Your task to perform on an android device: star an email in the gmail app Image 0: 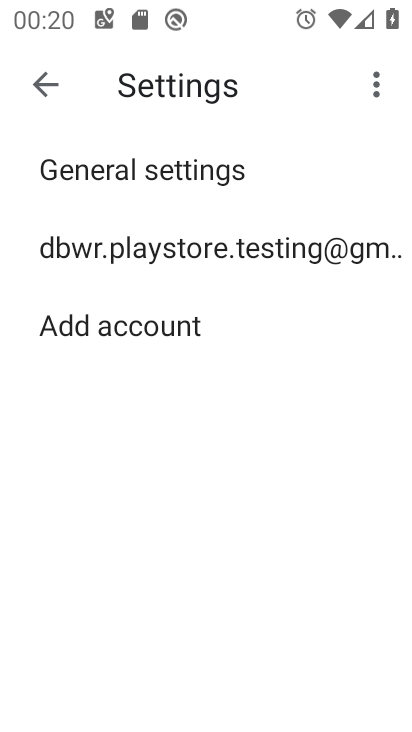
Step 0: click (53, 83)
Your task to perform on an android device: star an email in the gmail app Image 1: 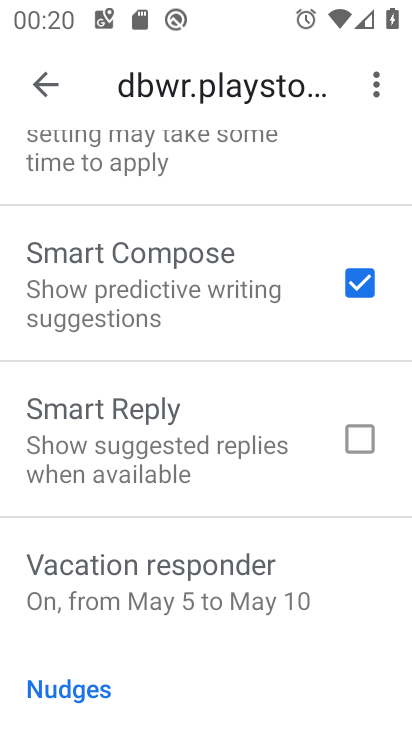
Step 1: click (51, 90)
Your task to perform on an android device: star an email in the gmail app Image 2: 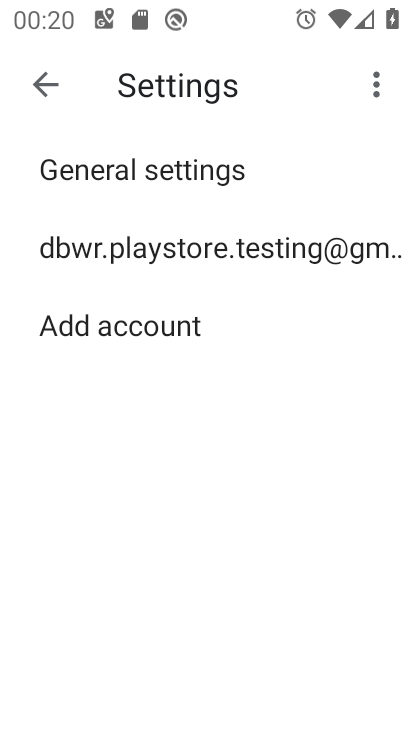
Step 2: click (52, 88)
Your task to perform on an android device: star an email in the gmail app Image 3: 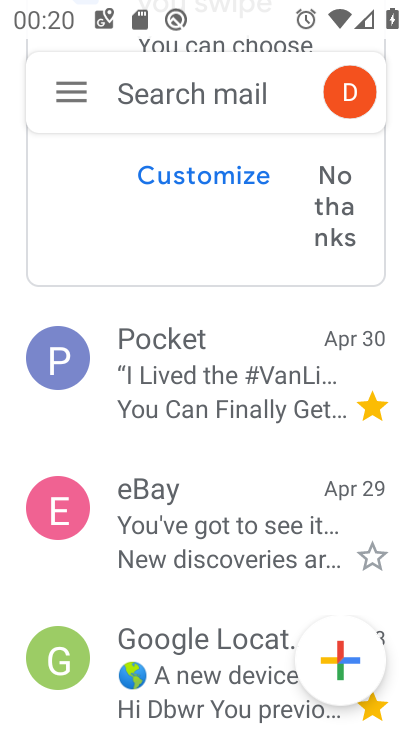
Step 3: click (369, 554)
Your task to perform on an android device: star an email in the gmail app Image 4: 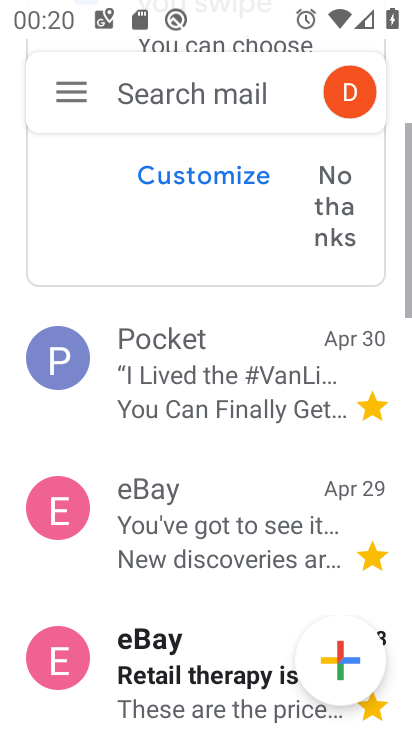
Step 4: task complete